Your task to perform on an android device: Open battery settings Image 0: 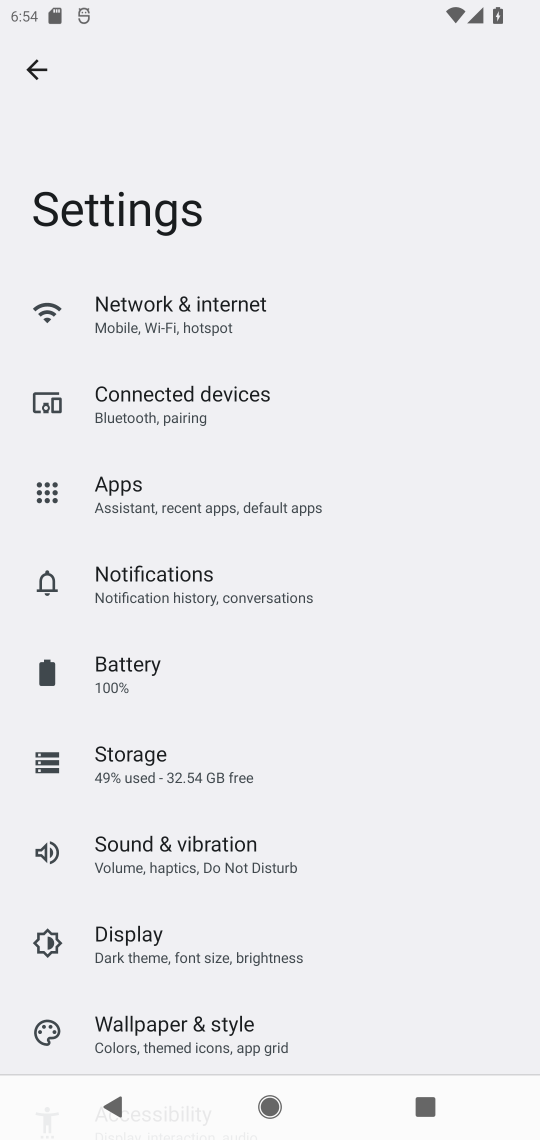
Step 0: drag from (259, 7) to (315, 933)
Your task to perform on an android device: Open battery settings Image 1: 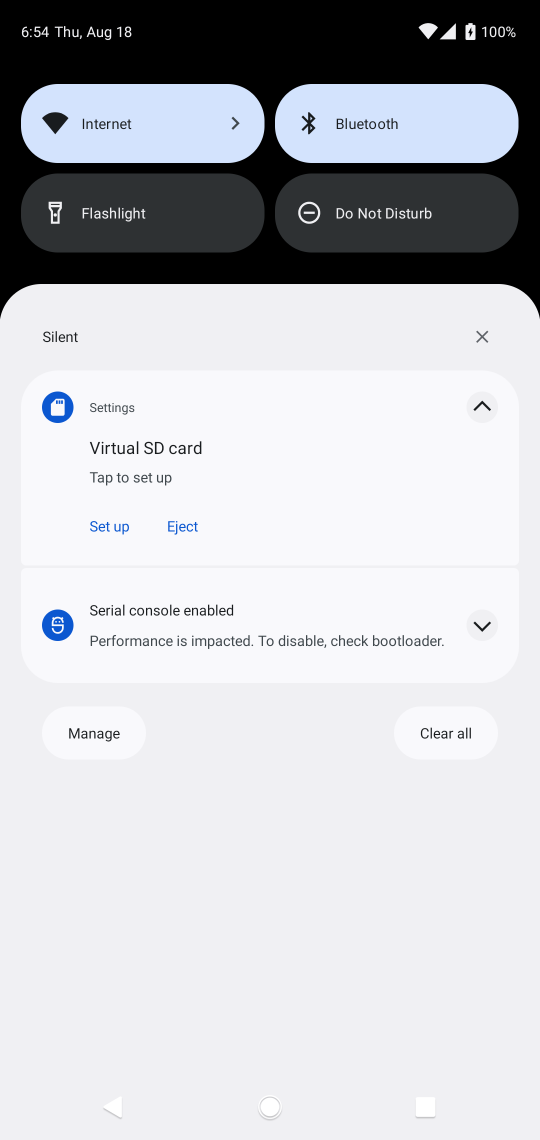
Step 1: press back button
Your task to perform on an android device: Open battery settings Image 2: 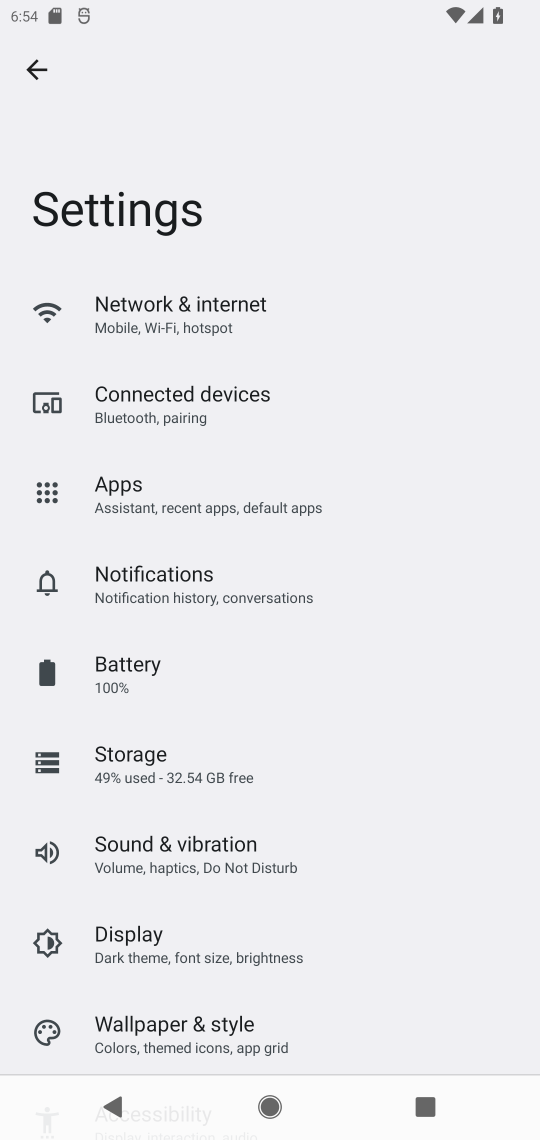
Step 2: click (150, 657)
Your task to perform on an android device: Open battery settings Image 3: 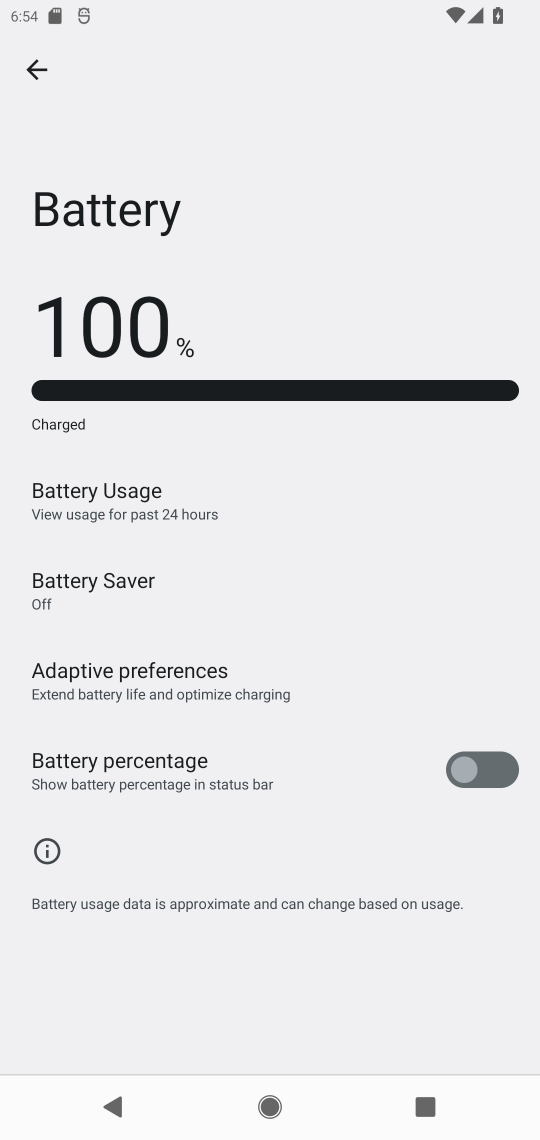
Step 3: task complete